Your task to perform on an android device: turn off airplane mode Image 0: 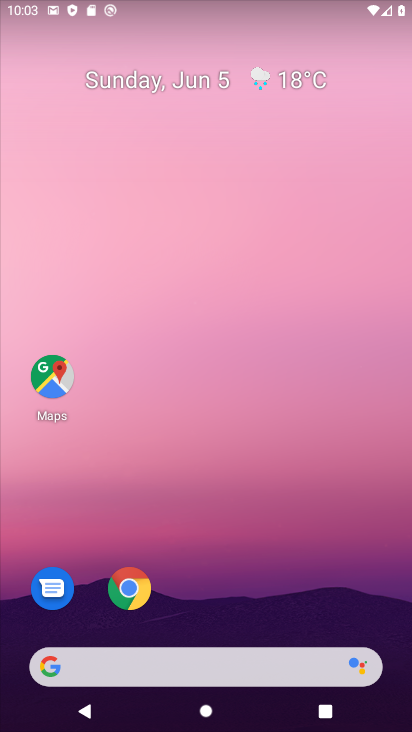
Step 0: drag from (247, 554) to (271, 181)
Your task to perform on an android device: turn off airplane mode Image 1: 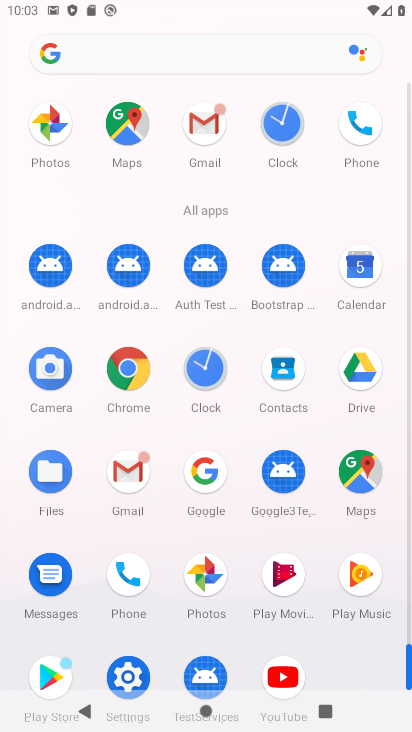
Step 1: click (133, 659)
Your task to perform on an android device: turn off airplane mode Image 2: 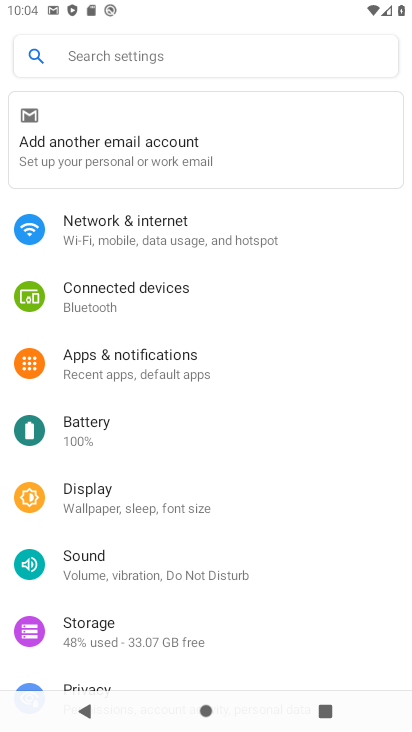
Step 2: click (199, 241)
Your task to perform on an android device: turn off airplane mode Image 3: 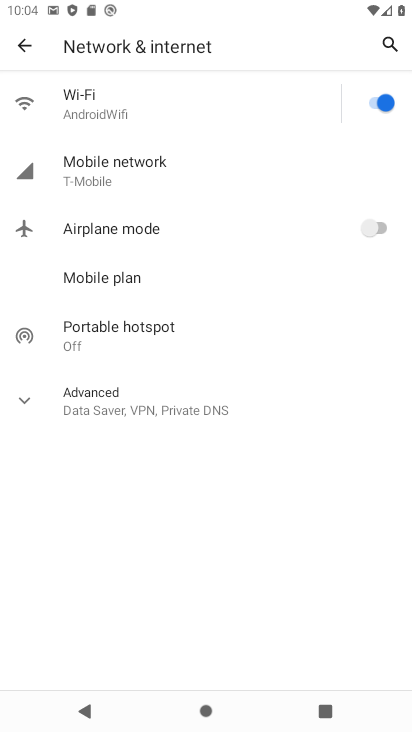
Step 3: task complete